Your task to perform on an android device: turn off picture-in-picture Image 0: 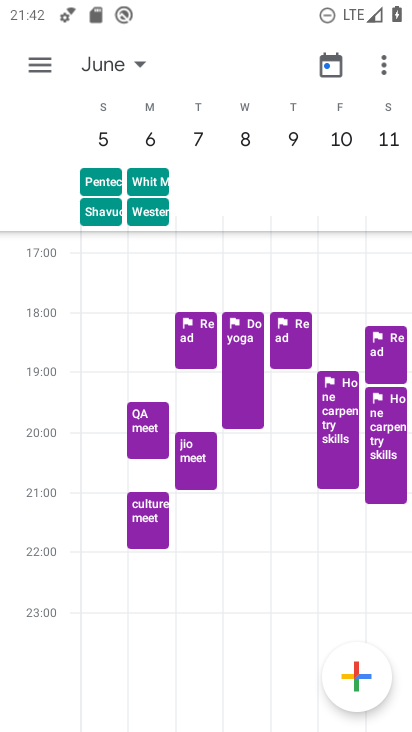
Step 0: press home button
Your task to perform on an android device: turn off picture-in-picture Image 1: 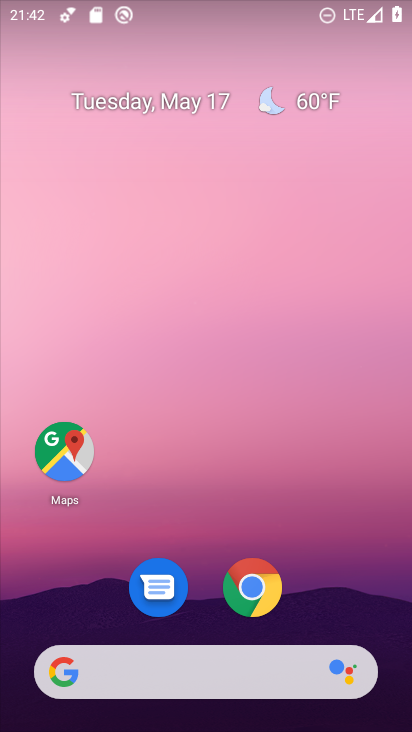
Step 1: drag from (276, 505) to (246, 142)
Your task to perform on an android device: turn off picture-in-picture Image 2: 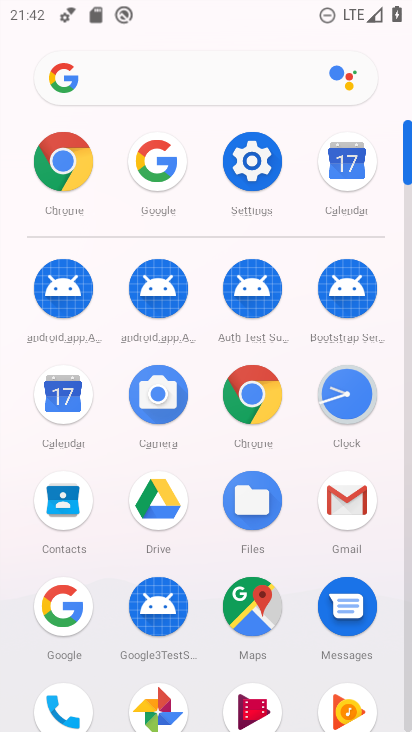
Step 2: click (259, 178)
Your task to perform on an android device: turn off picture-in-picture Image 3: 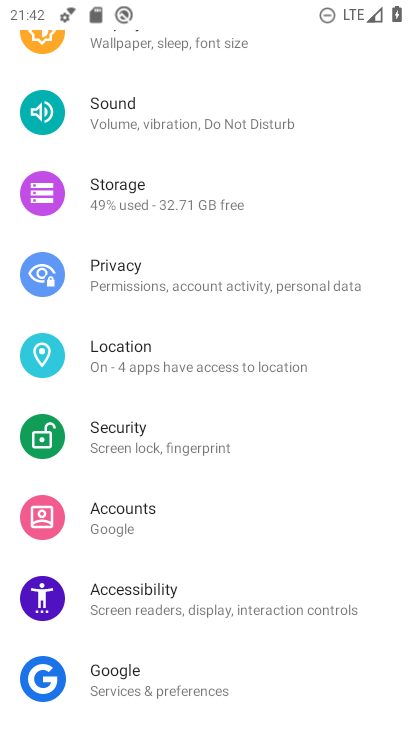
Step 3: drag from (174, 515) to (226, 189)
Your task to perform on an android device: turn off picture-in-picture Image 4: 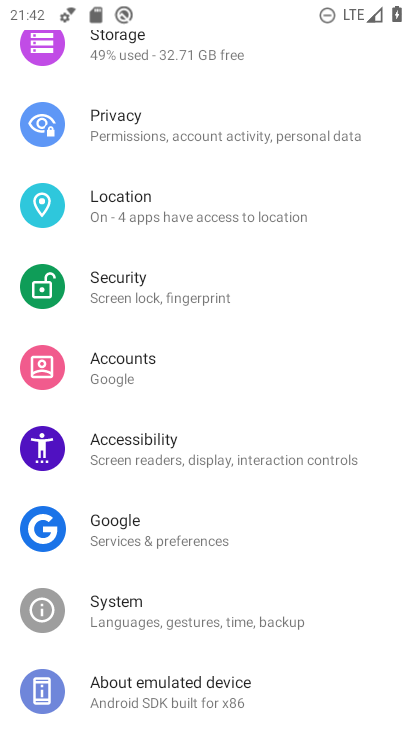
Step 4: drag from (173, 355) to (189, 621)
Your task to perform on an android device: turn off picture-in-picture Image 5: 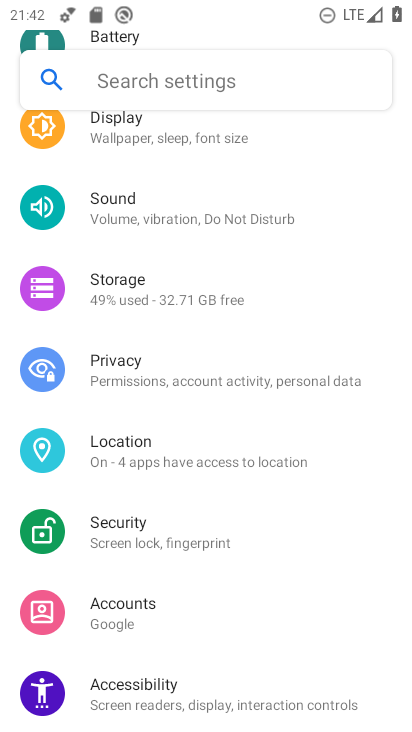
Step 5: drag from (210, 301) to (237, 631)
Your task to perform on an android device: turn off picture-in-picture Image 6: 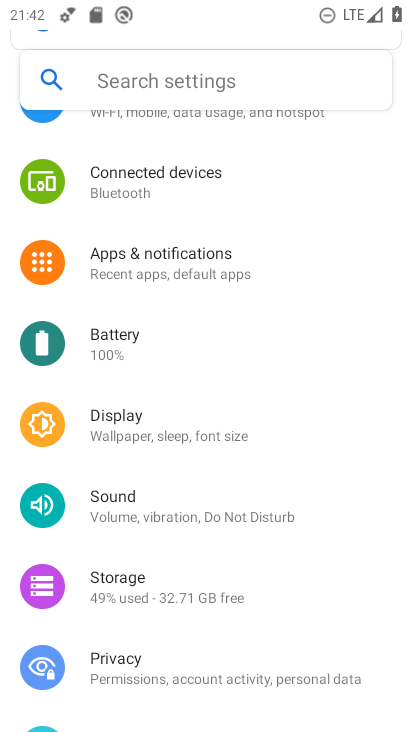
Step 6: click (168, 283)
Your task to perform on an android device: turn off picture-in-picture Image 7: 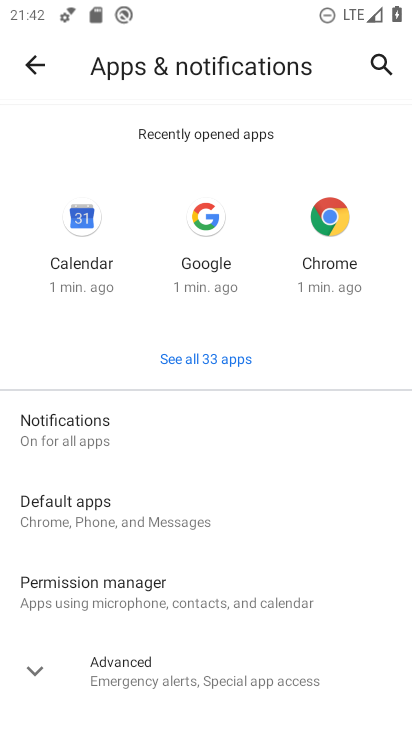
Step 7: drag from (199, 599) to (196, 218)
Your task to perform on an android device: turn off picture-in-picture Image 8: 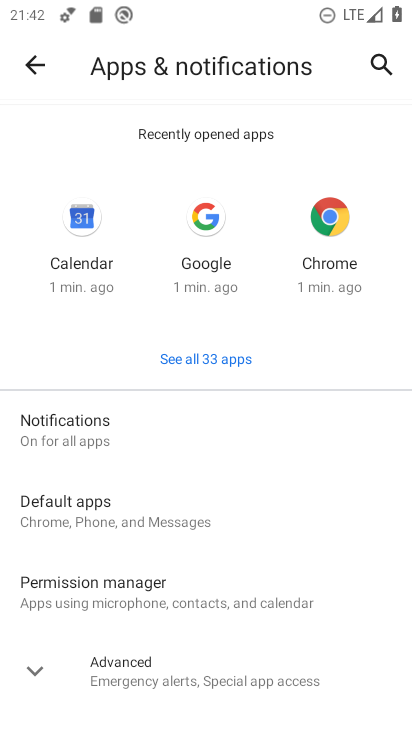
Step 8: click (163, 697)
Your task to perform on an android device: turn off picture-in-picture Image 9: 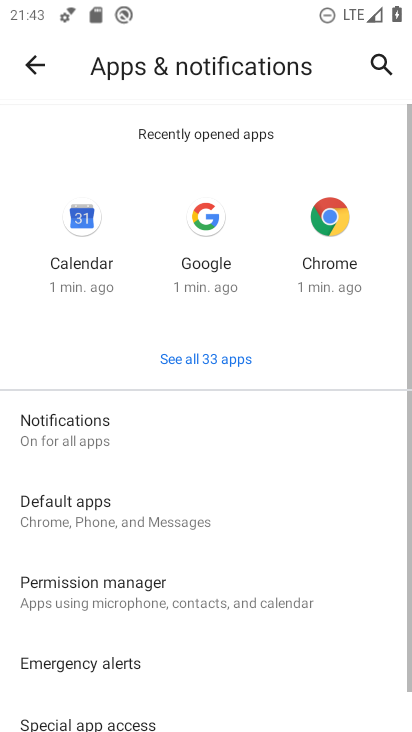
Step 9: drag from (158, 654) to (181, 260)
Your task to perform on an android device: turn off picture-in-picture Image 10: 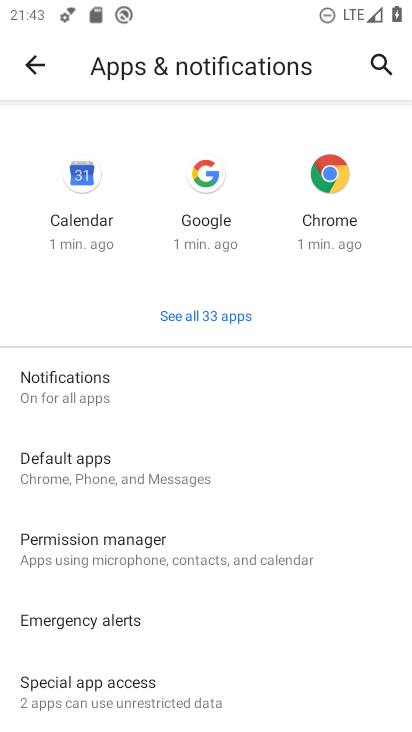
Step 10: click (152, 392)
Your task to perform on an android device: turn off picture-in-picture Image 11: 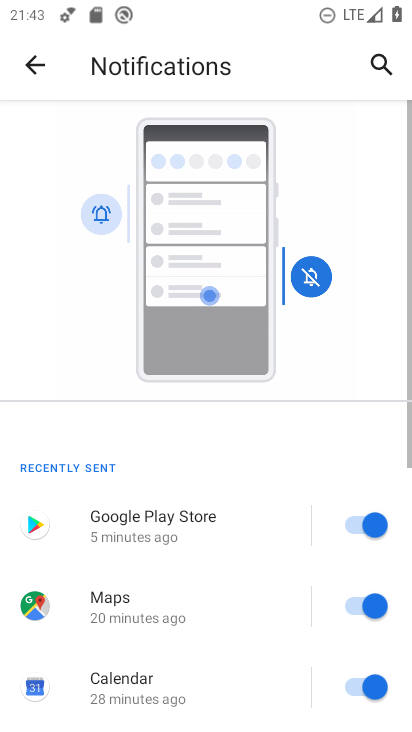
Step 11: drag from (192, 620) to (183, 57)
Your task to perform on an android device: turn off picture-in-picture Image 12: 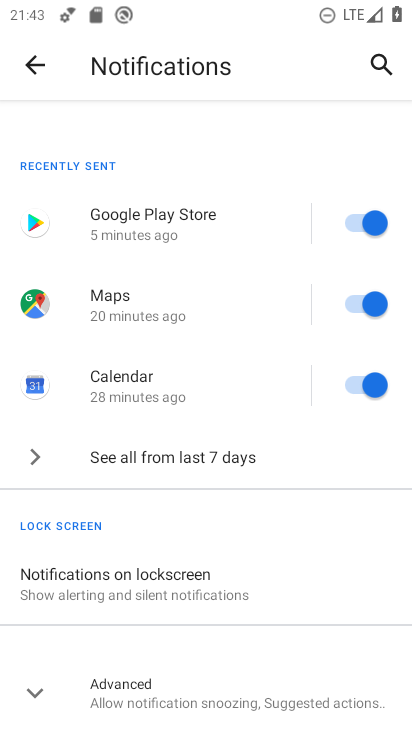
Step 12: click (133, 710)
Your task to perform on an android device: turn off picture-in-picture Image 13: 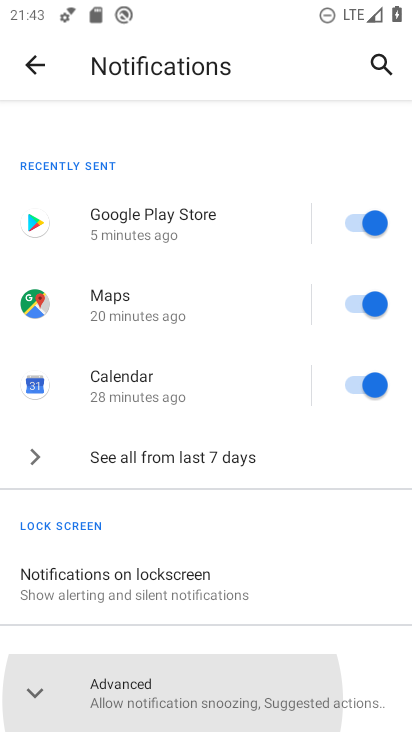
Step 13: drag from (132, 697) to (157, 198)
Your task to perform on an android device: turn off picture-in-picture Image 14: 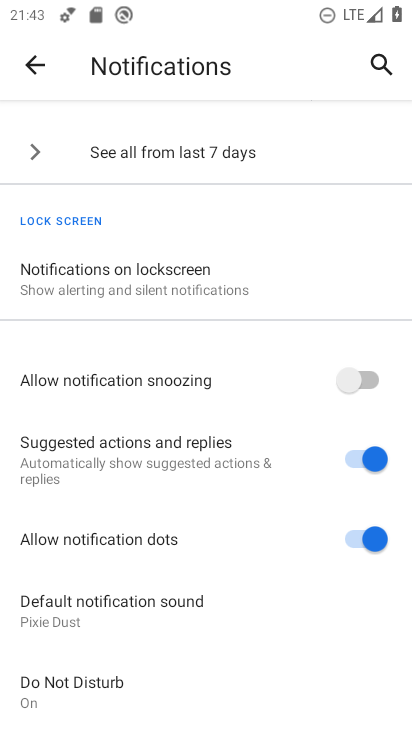
Step 14: press back button
Your task to perform on an android device: turn off picture-in-picture Image 15: 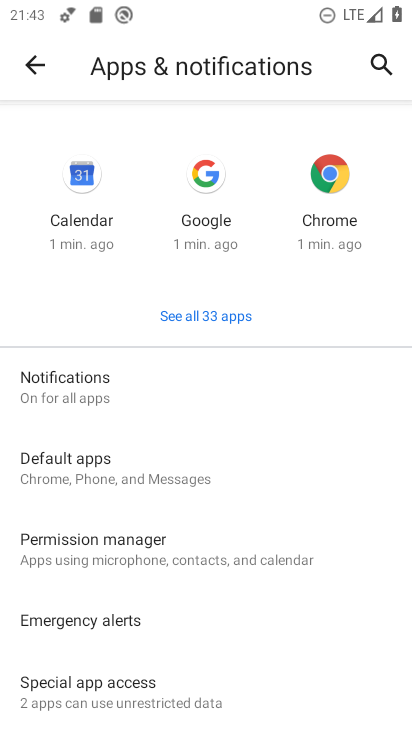
Step 15: click (209, 690)
Your task to perform on an android device: turn off picture-in-picture Image 16: 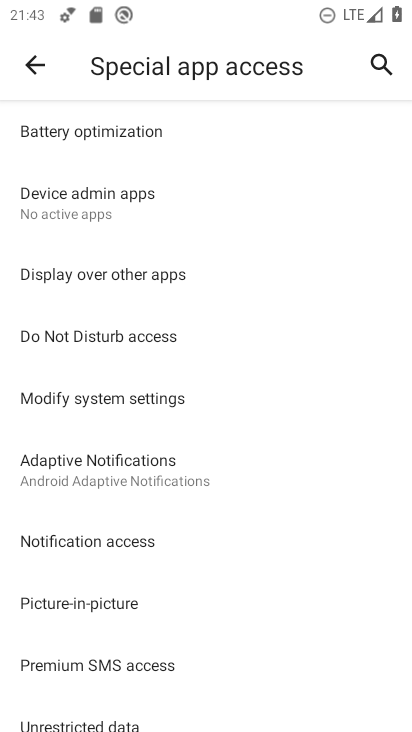
Step 16: click (195, 618)
Your task to perform on an android device: turn off picture-in-picture Image 17: 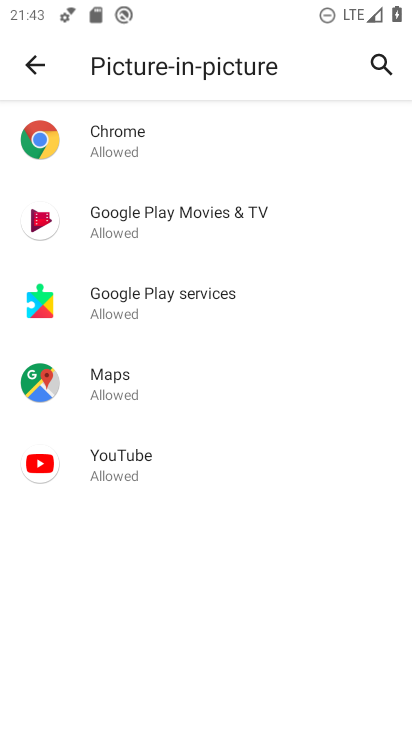
Step 17: click (160, 196)
Your task to perform on an android device: turn off picture-in-picture Image 18: 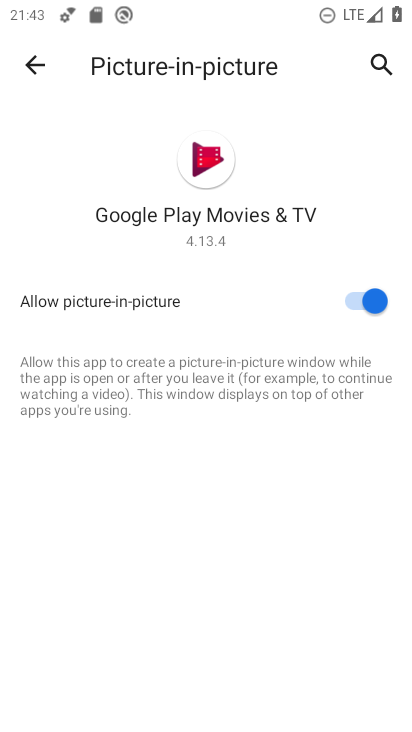
Step 18: click (363, 321)
Your task to perform on an android device: turn off picture-in-picture Image 19: 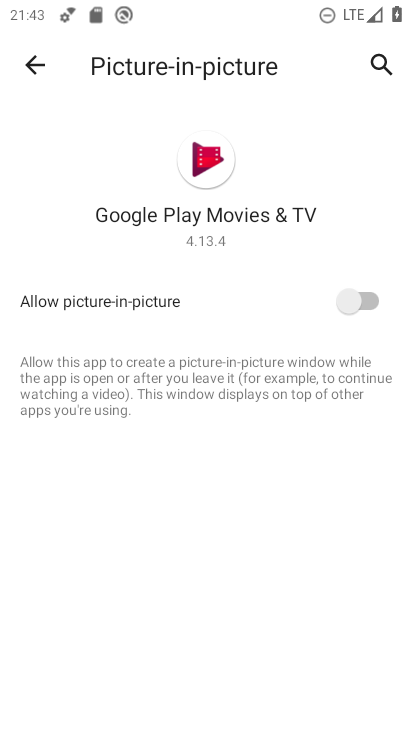
Step 19: task complete